Your task to perform on an android device: Open calendar and show me the fourth week of next month Image 0: 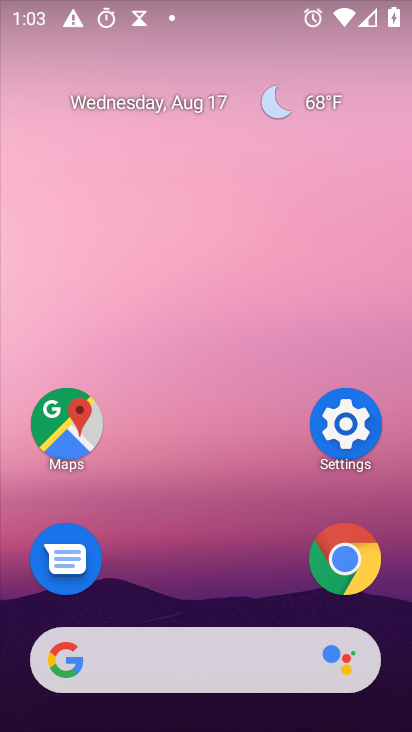
Step 0: drag from (159, 634) to (276, 134)
Your task to perform on an android device: Open calendar and show me the fourth week of next month Image 1: 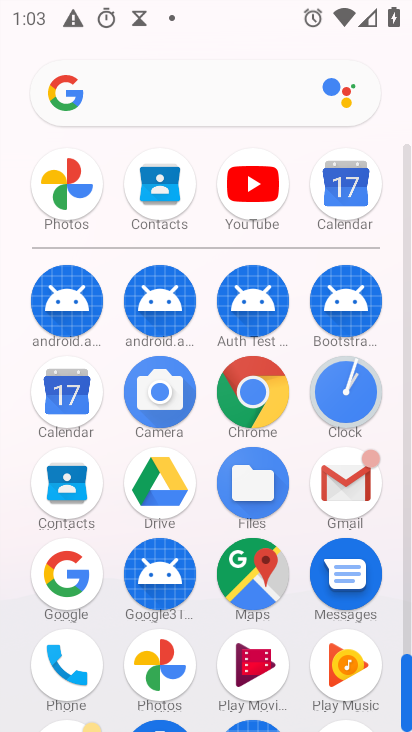
Step 1: click (63, 403)
Your task to perform on an android device: Open calendar and show me the fourth week of next month Image 2: 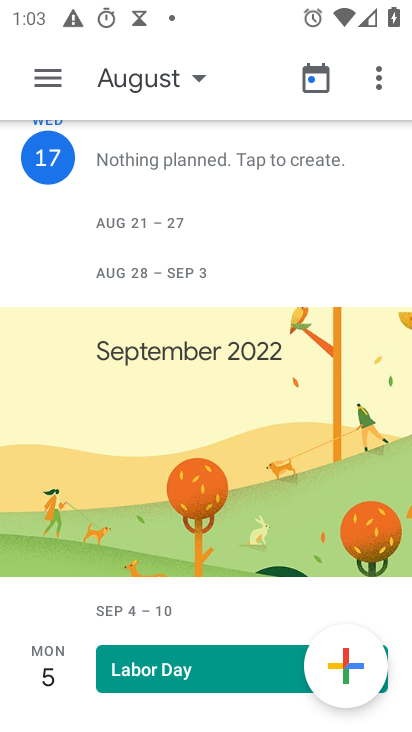
Step 2: click (152, 76)
Your task to perform on an android device: Open calendar and show me the fourth week of next month Image 3: 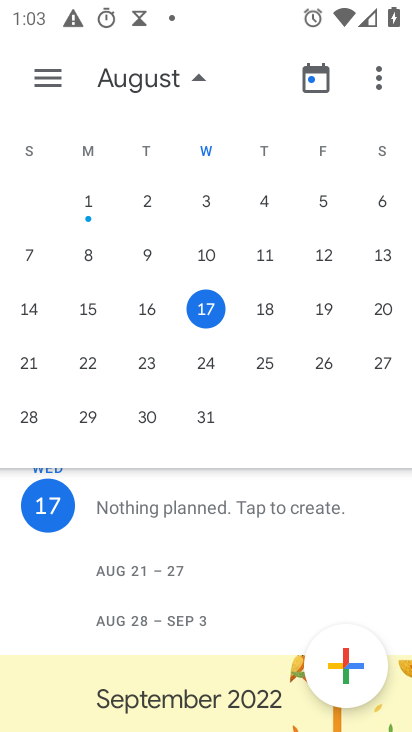
Step 3: drag from (374, 278) to (28, 304)
Your task to perform on an android device: Open calendar and show me the fourth week of next month Image 4: 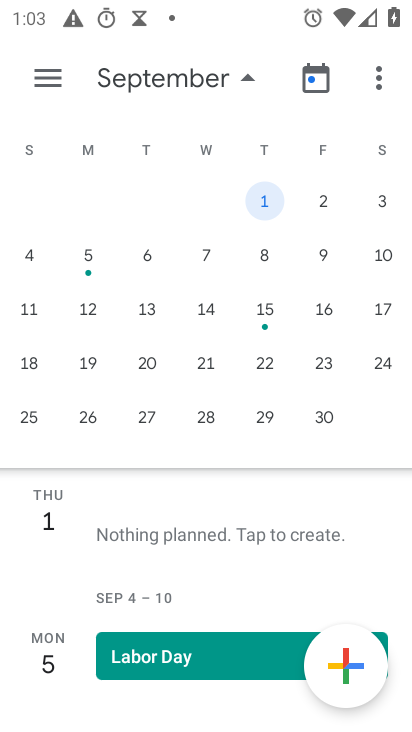
Step 4: click (31, 363)
Your task to perform on an android device: Open calendar and show me the fourth week of next month Image 5: 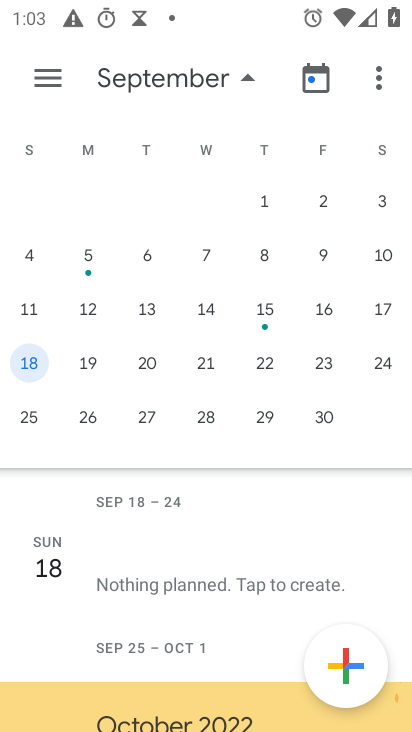
Step 5: click (46, 80)
Your task to perform on an android device: Open calendar and show me the fourth week of next month Image 6: 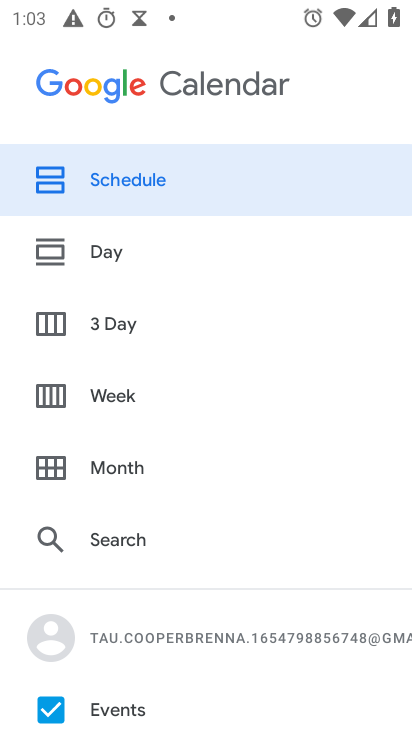
Step 6: click (126, 389)
Your task to perform on an android device: Open calendar and show me the fourth week of next month Image 7: 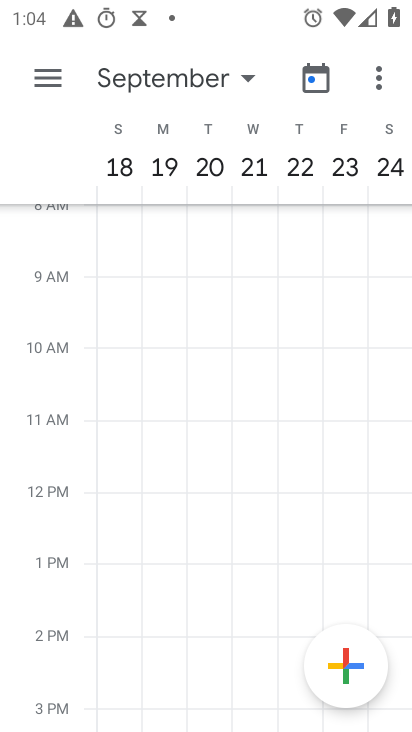
Step 7: task complete